Your task to perform on an android device: toggle improve location accuracy Image 0: 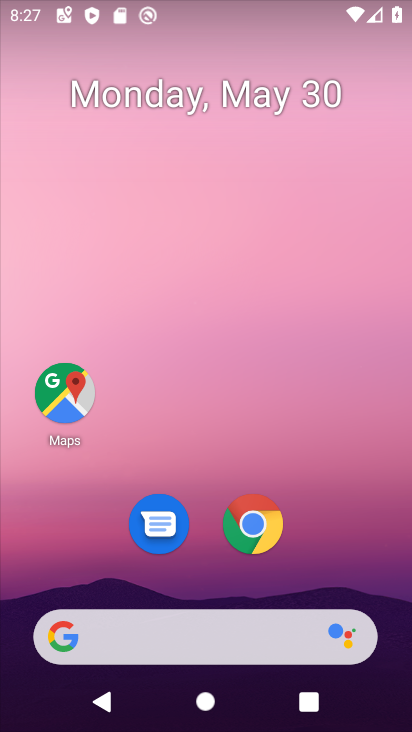
Step 0: drag from (199, 453) to (226, 0)
Your task to perform on an android device: toggle improve location accuracy Image 1: 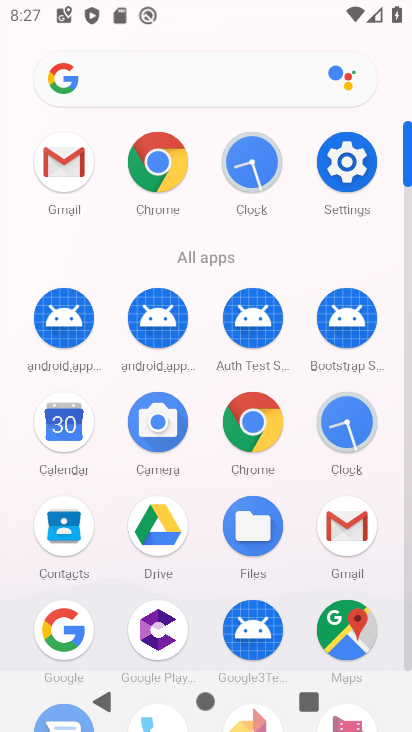
Step 1: click (339, 165)
Your task to perform on an android device: toggle improve location accuracy Image 2: 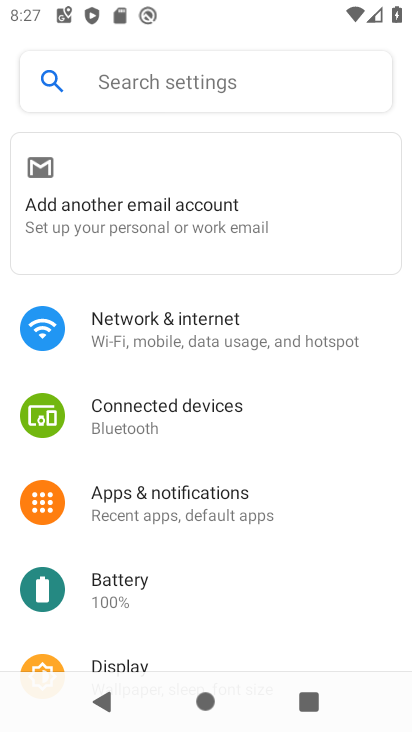
Step 2: drag from (250, 438) to (264, 38)
Your task to perform on an android device: toggle improve location accuracy Image 3: 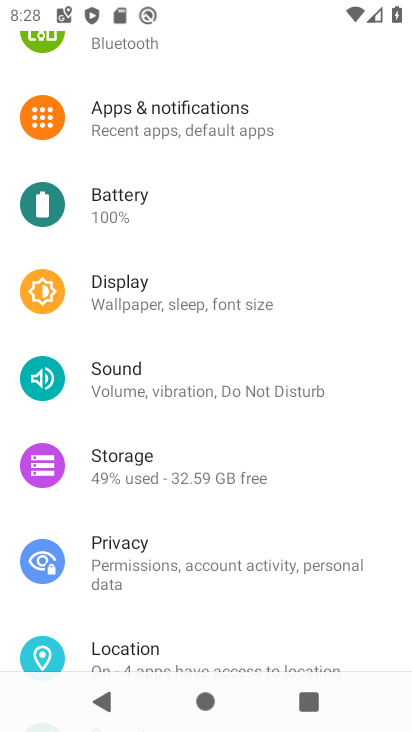
Step 3: drag from (223, 580) to (232, 284)
Your task to perform on an android device: toggle improve location accuracy Image 4: 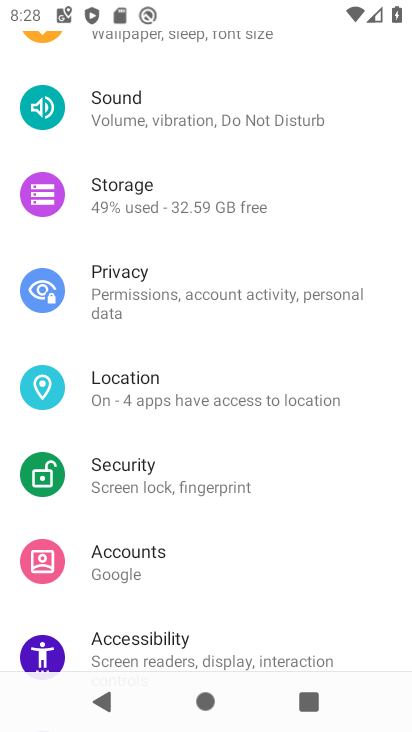
Step 4: click (229, 403)
Your task to perform on an android device: toggle improve location accuracy Image 5: 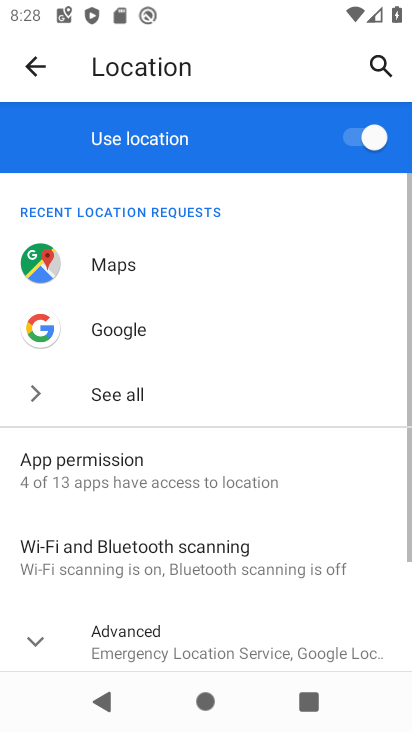
Step 5: click (30, 639)
Your task to perform on an android device: toggle improve location accuracy Image 6: 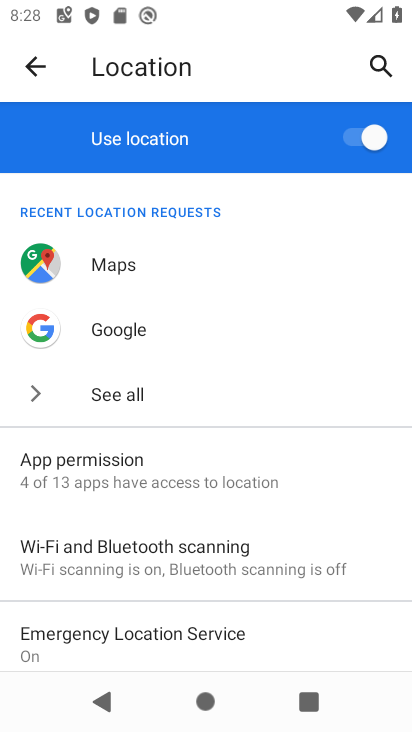
Step 6: drag from (185, 525) to (224, 268)
Your task to perform on an android device: toggle improve location accuracy Image 7: 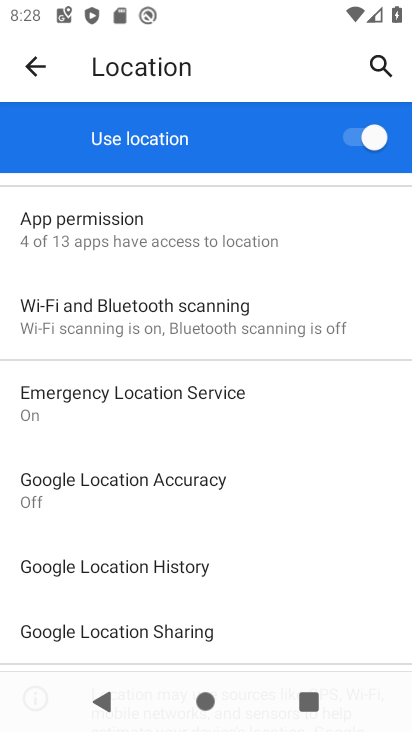
Step 7: click (166, 494)
Your task to perform on an android device: toggle improve location accuracy Image 8: 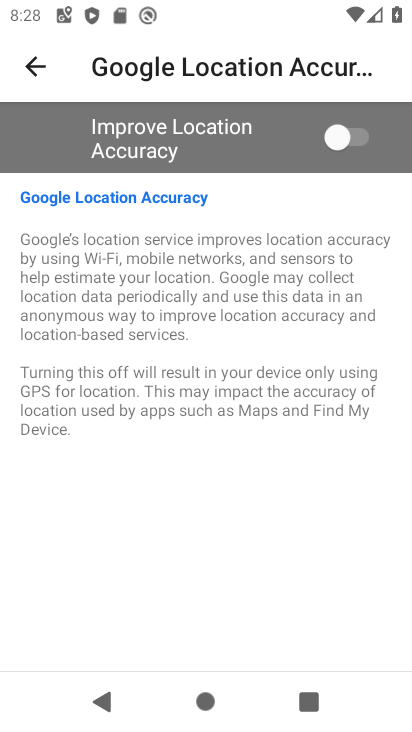
Step 8: click (343, 126)
Your task to perform on an android device: toggle improve location accuracy Image 9: 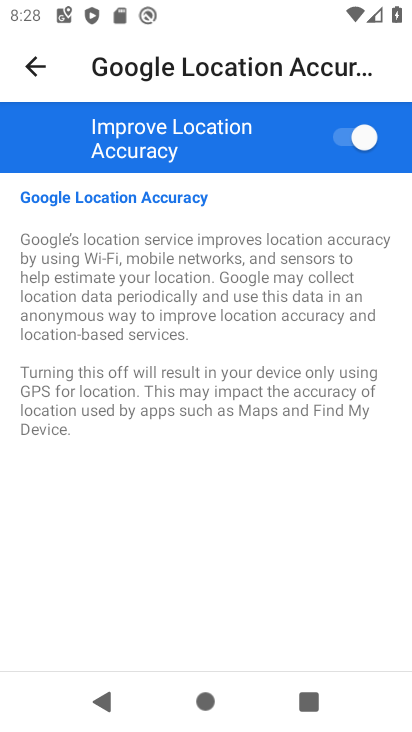
Step 9: task complete